Your task to perform on an android device: check google app version Image 0: 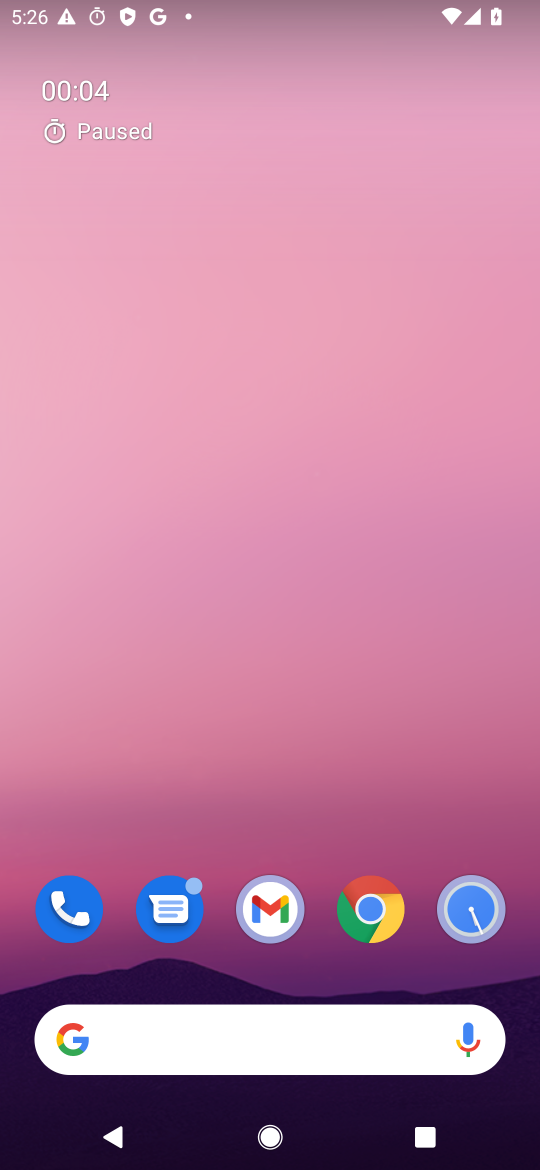
Step 0: drag from (287, 982) to (500, 219)
Your task to perform on an android device: check google app version Image 1: 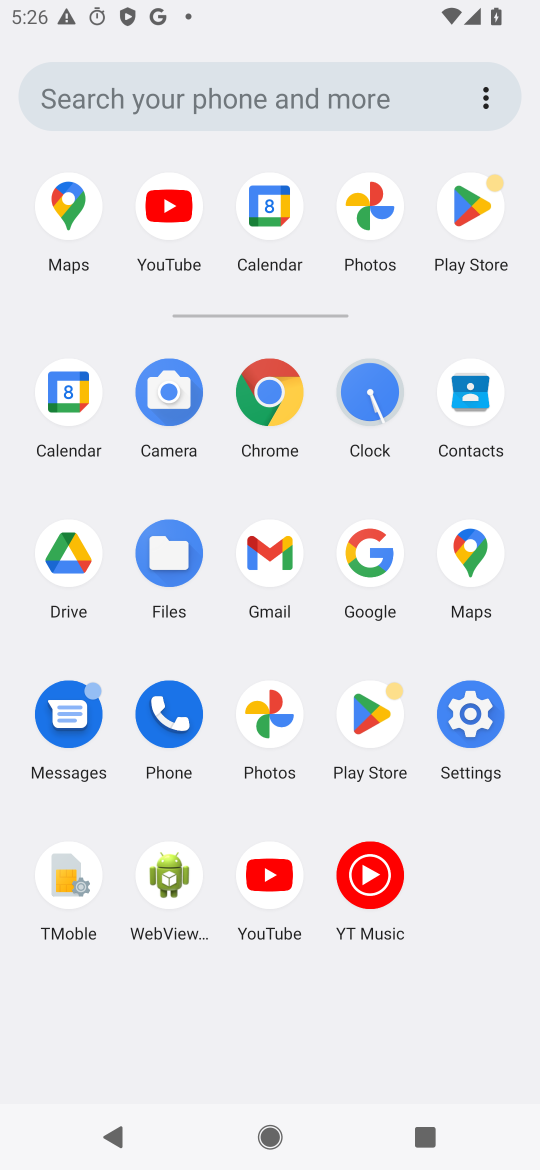
Step 1: click (371, 552)
Your task to perform on an android device: check google app version Image 2: 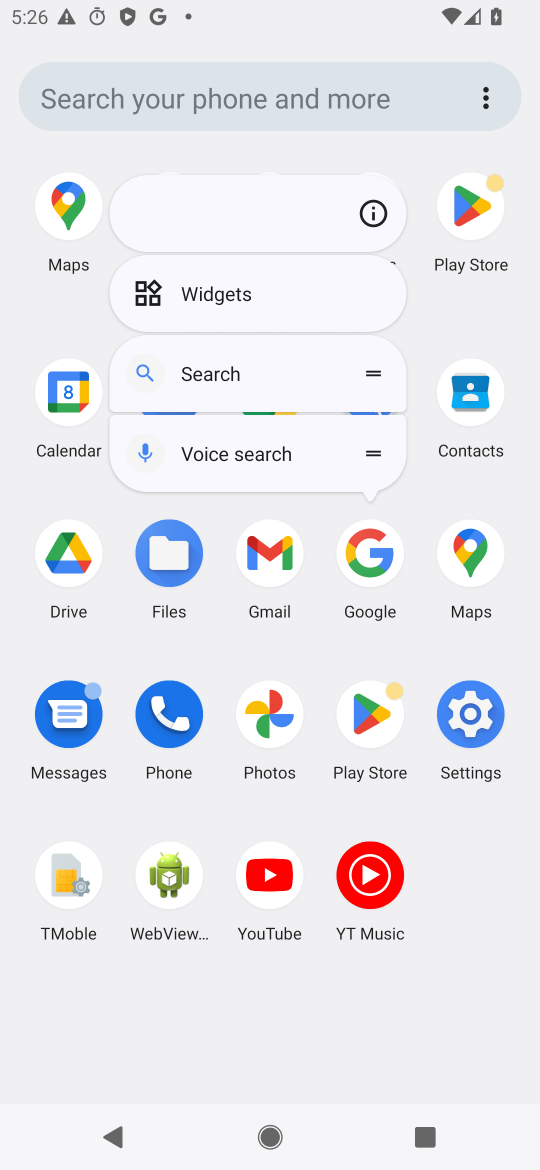
Step 2: click (384, 211)
Your task to perform on an android device: check google app version Image 3: 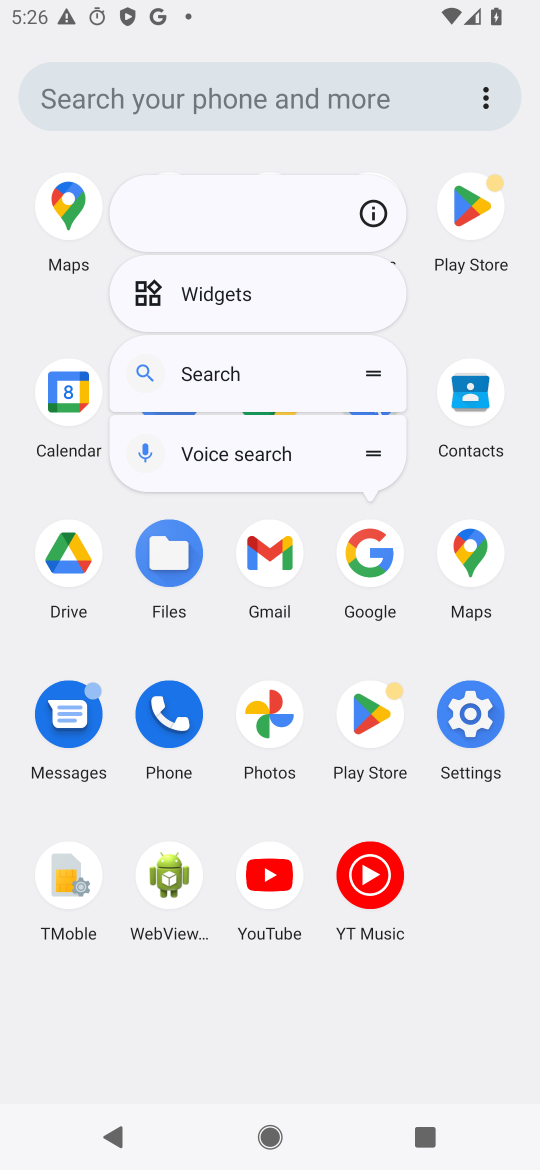
Step 3: click (370, 206)
Your task to perform on an android device: check google app version Image 4: 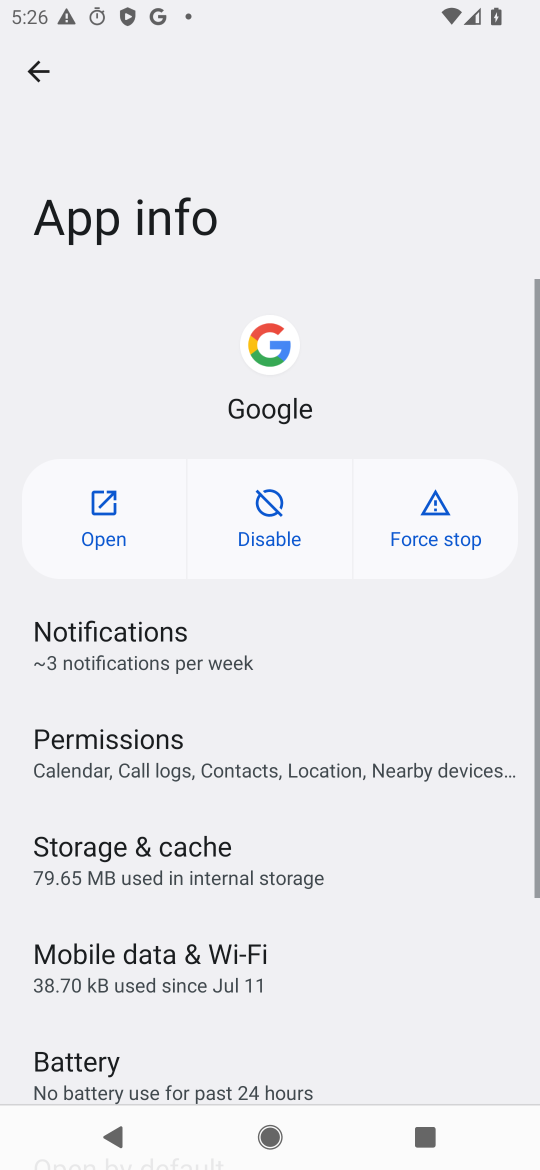
Step 4: task complete